Your task to perform on an android device: add a contact Image 0: 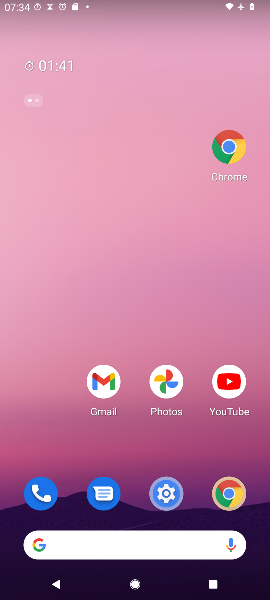
Step 0: press home button
Your task to perform on an android device: add a contact Image 1: 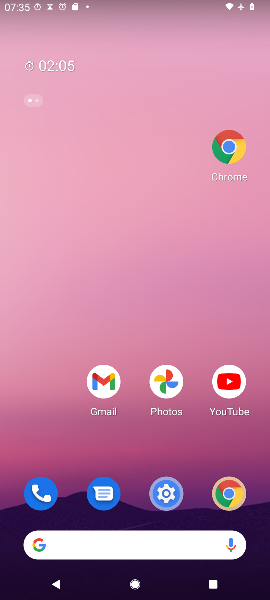
Step 1: drag from (136, 520) to (123, 45)
Your task to perform on an android device: add a contact Image 2: 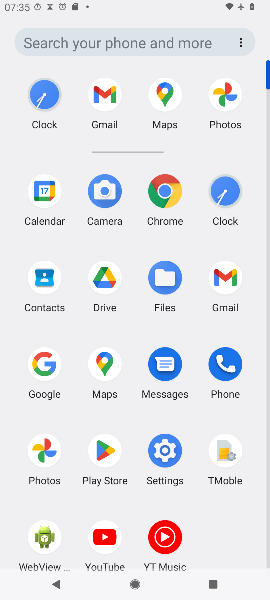
Step 2: click (51, 274)
Your task to perform on an android device: add a contact Image 3: 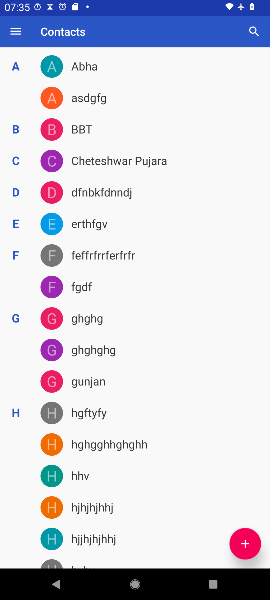
Step 3: click (242, 547)
Your task to perform on an android device: add a contact Image 4: 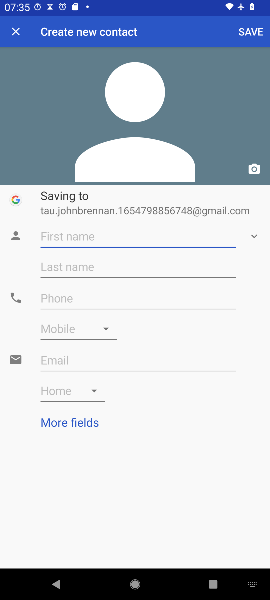
Step 4: type "bbnbnbnb"
Your task to perform on an android device: add a contact Image 5: 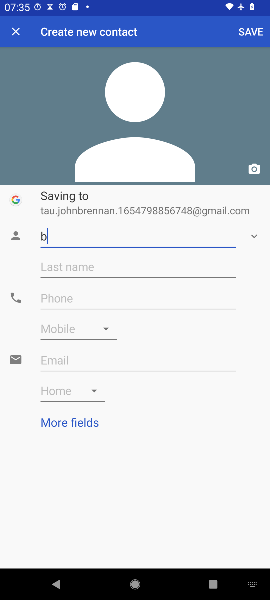
Step 5: press enter
Your task to perform on an android device: add a contact Image 6: 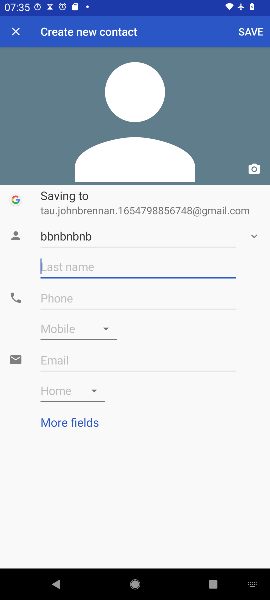
Step 6: click (77, 300)
Your task to perform on an android device: add a contact Image 7: 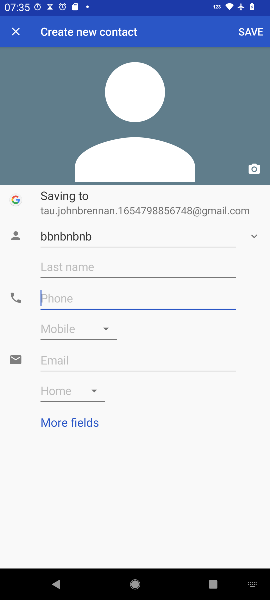
Step 7: type "7878787"
Your task to perform on an android device: add a contact Image 8: 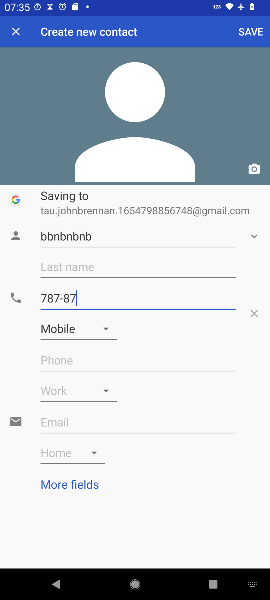
Step 8: press enter
Your task to perform on an android device: add a contact Image 9: 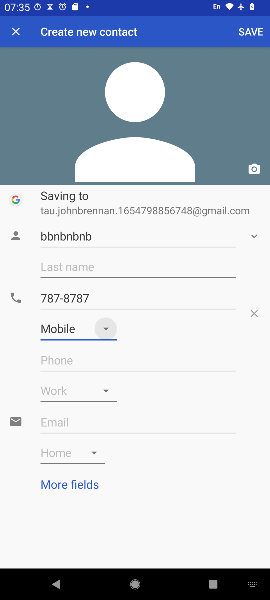
Step 9: click (246, 37)
Your task to perform on an android device: add a contact Image 10: 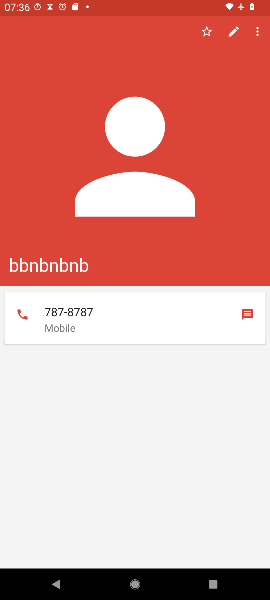
Step 10: task complete